Your task to perform on an android device: empty trash in the gmail app Image 0: 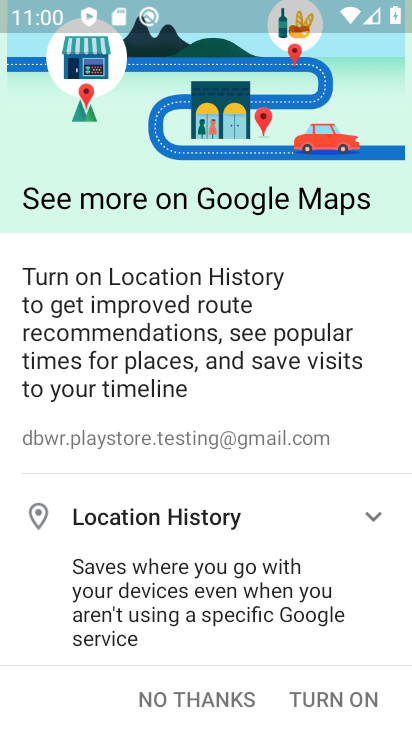
Step 0: task complete